Your task to perform on an android device: see sites visited before in the chrome app Image 0: 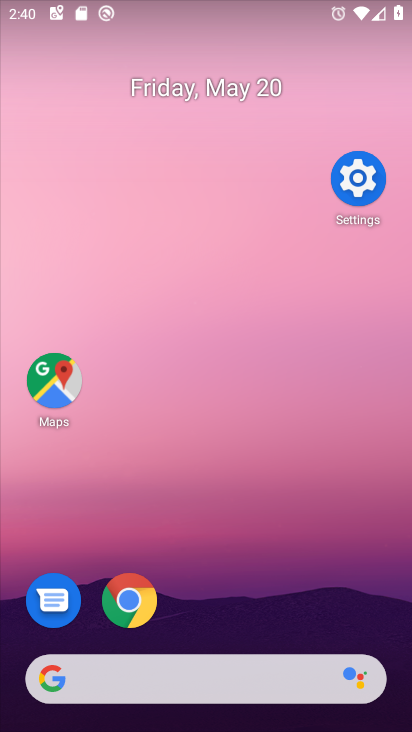
Step 0: drag from (238, 582) to (197, 120)
Your task to perform on an android device: see sites visited before in the chrome app Image 1: 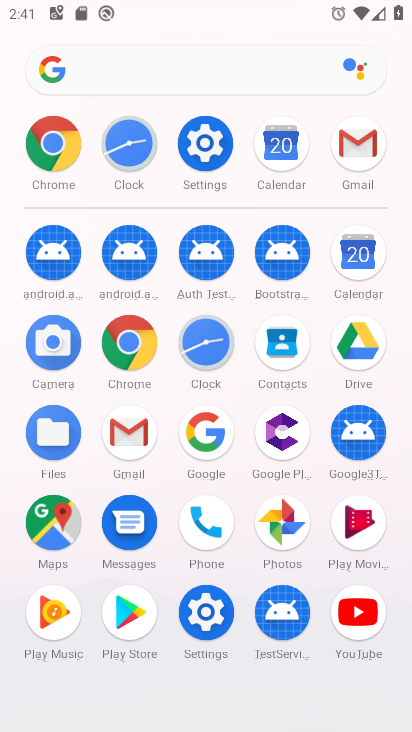
Step 1: click (138, 343)
Your task to perform on an android device: see sites visited before in the chrome app Image 2: 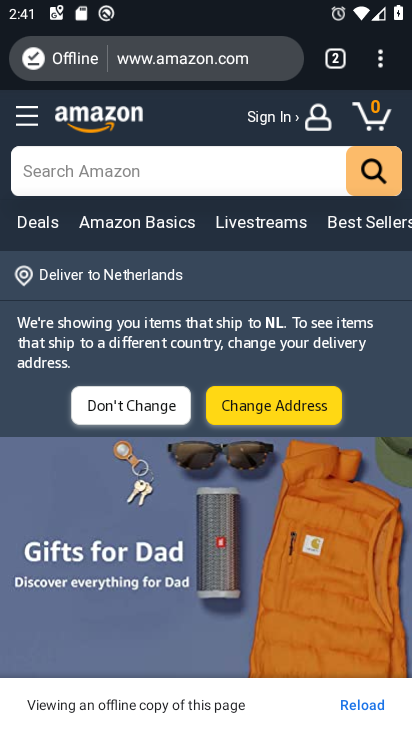
Step 2: click (377, 60)
Your task to perform on an android device: see sites visited before in the chrome app Image 3: 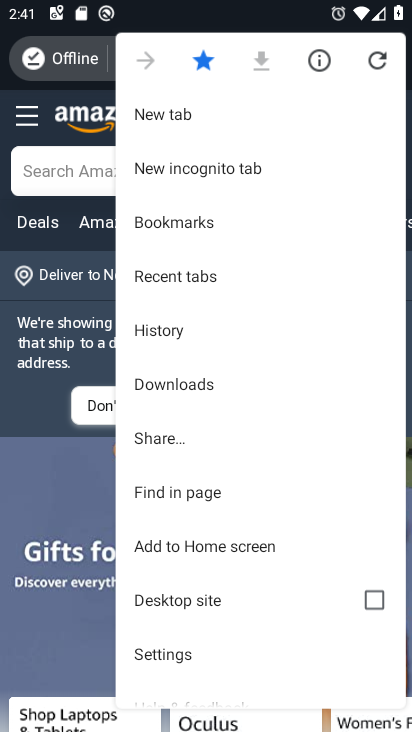
Step 3: click (177, 329)
Your task to perform on an android device: see sites visited before in the chrome app Image 4: 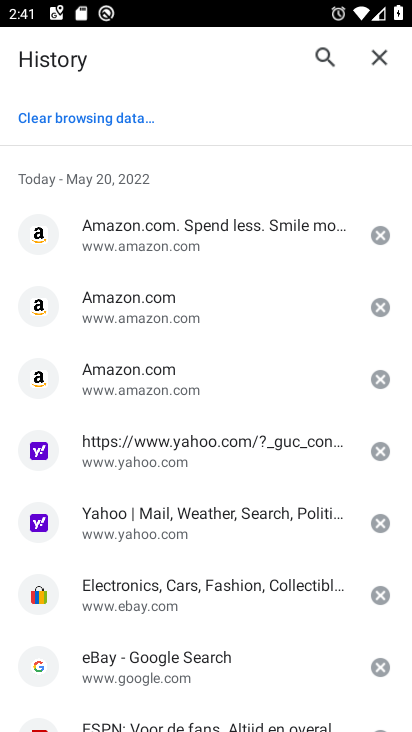
Step 4: task complete